Your task to perform on an android device: turn smart compose on in the gmail app Image 0: 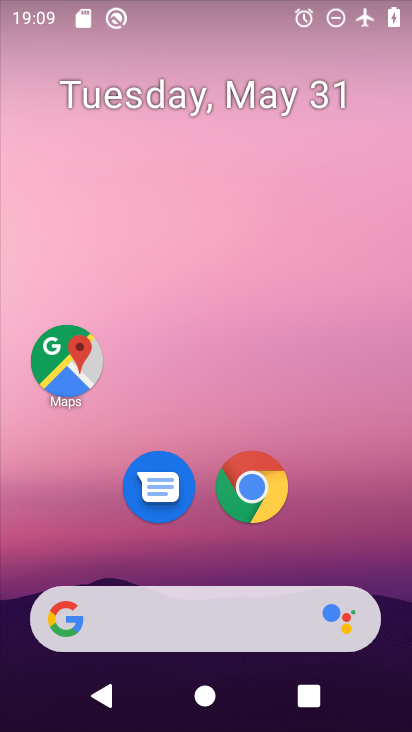
Step 0: drag from (341, 541) to (235, 148)
Your task to perform on an android device: turn smart compose on in the gmail app Image 1: 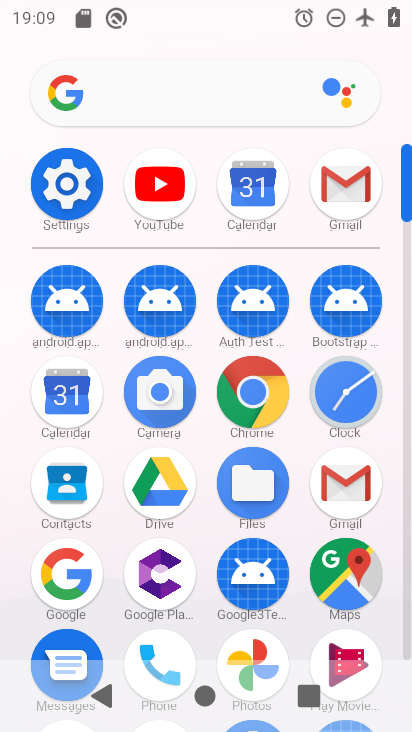
Step 1: click (335, 186)
Your task to perform on an android device: turn smart compose on in the gmail app Image 2: 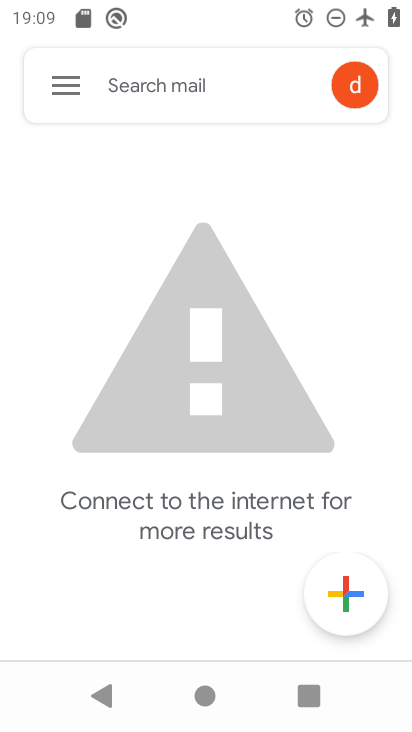
Step 2: click (60, 77)
Your task to perform on an android device: turn smart compose on in the gmail app Image 3: 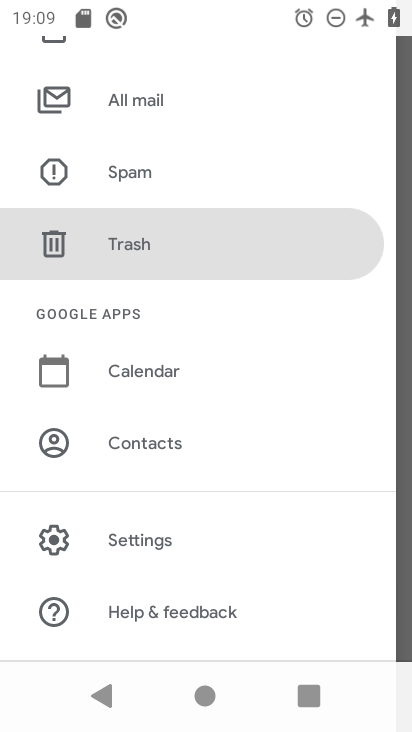
Step 3: click (133, 533)
Your task to perform on an android device: turn smart compose on in the gmail app Image 4: 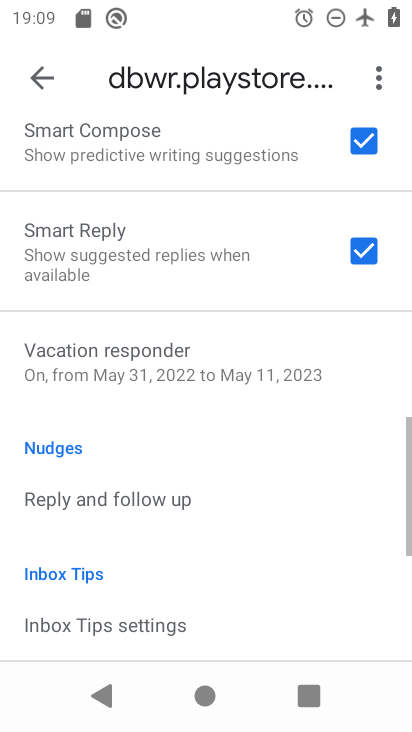
Step 4: task complete